Your task to perform on an android device: Open Youtube and go to "Your channel" Image 0: 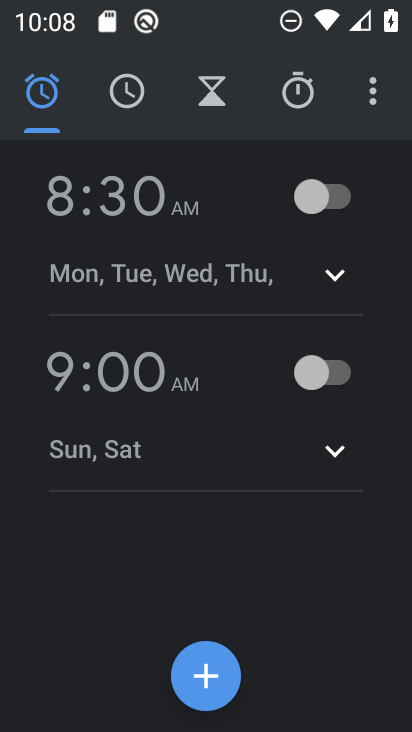
Step 0: press home button
Your task to perform on an android device: Open Youtube and go to "Your channel" Image 1: 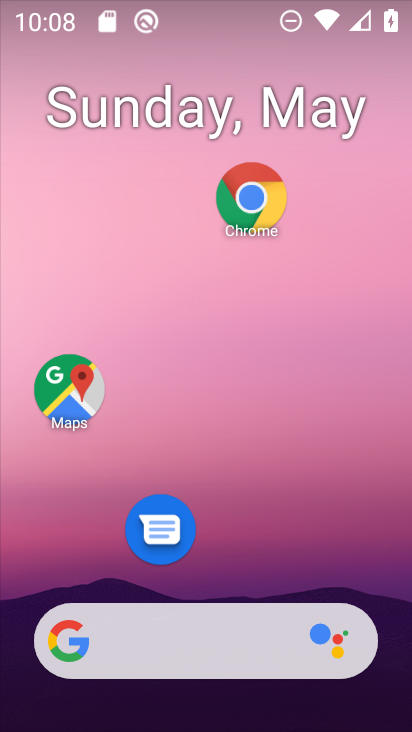
Step 1: drag from (286, 569) to (330, 57)
Your task to perform on an android device: Open Youtube and go to "Your channel" Image 2: 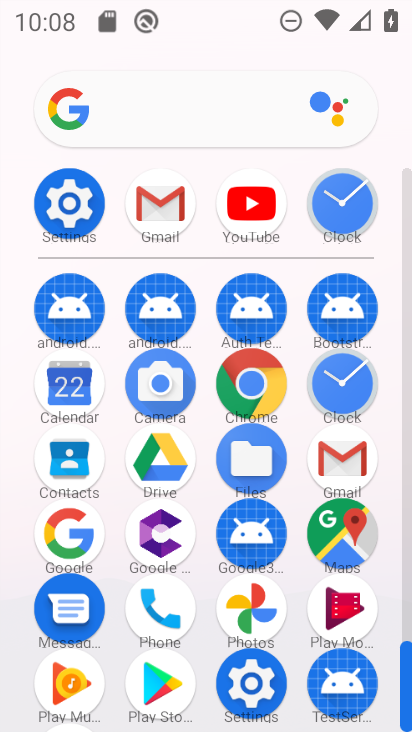
Step 2: click (255, 206)
Your task to perform on an android device: Open Youtube and go to "Your channel" Image 3: 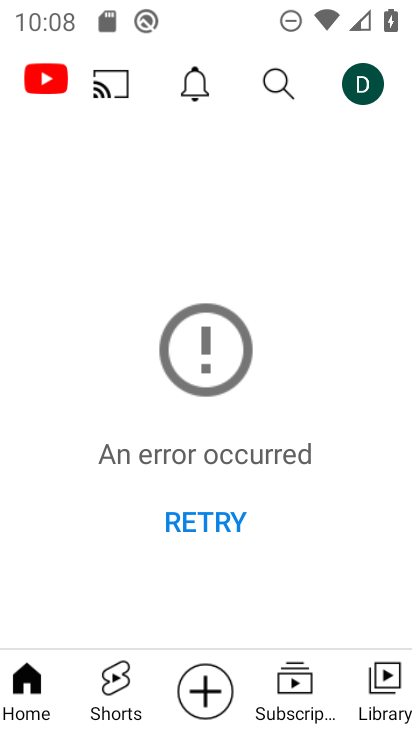
Step 3: click (365, 89)
Your task to perform on an android device: Open Youtube and go to "Your channel" Image 4: 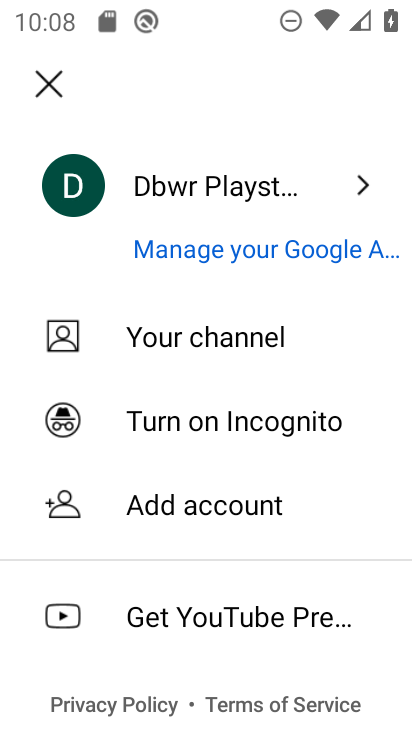
Step 4: click (178, 342)
Your task to perform on an android device: Open Youtube and go to "Your channel" Image 5: 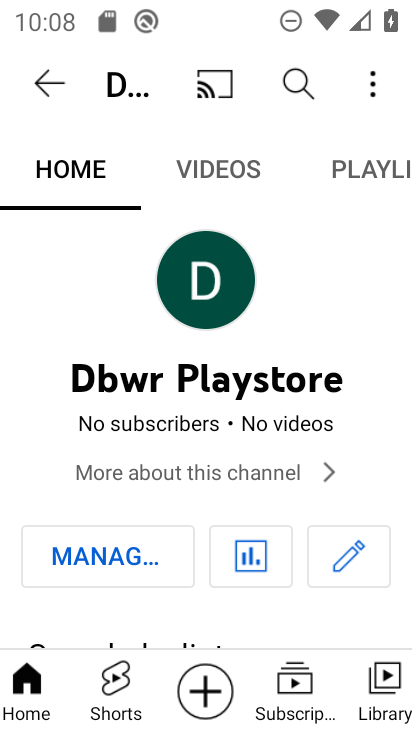
Step 5: task complete